Your task to perform on an android device: turn off notifications settings in the gmail app Image 0: 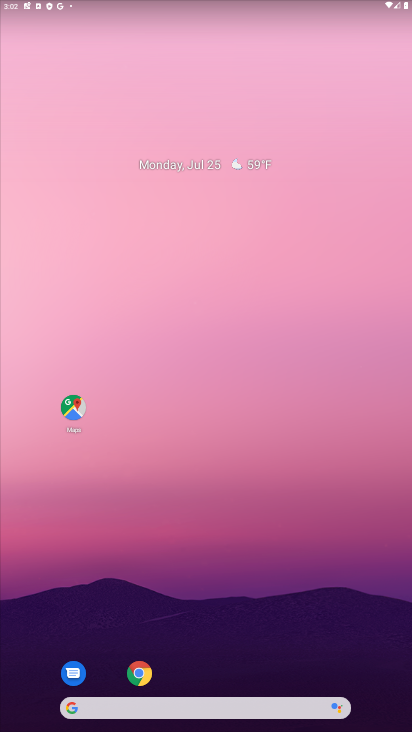
Step 0: drag from (224, 648) to (215, 61)
Your task to perform on an android device: turn off notifications settings in the gmail app Image 1: 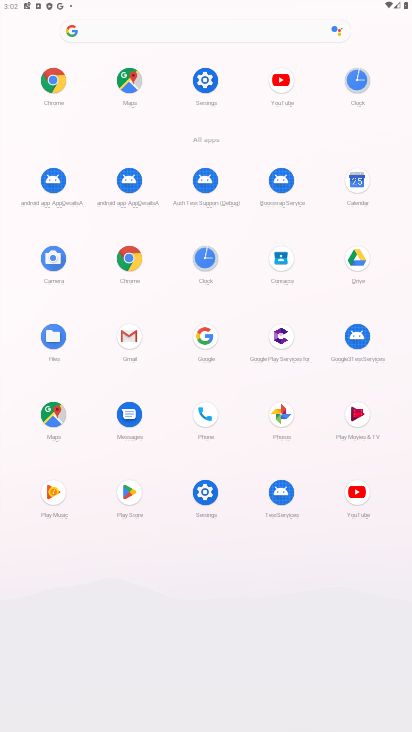
Step 1: click (197, 92)
Your task to perform on an android device: turn off notifications settings in the gmail app Image 2: 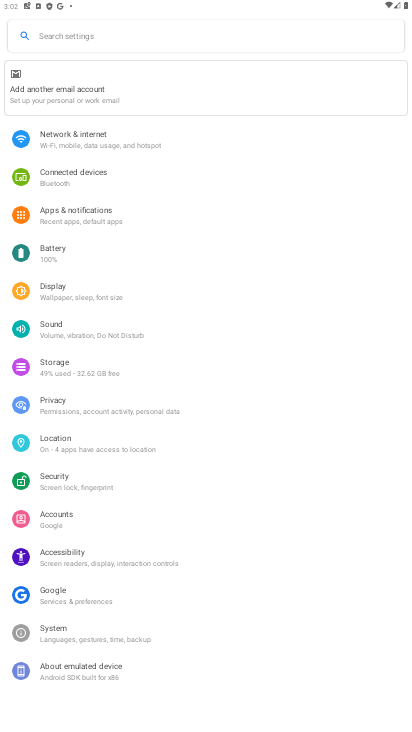
Step 2: click (154, 214)
Your task to perform on an android device: turn off notifications settings in the gmail app Image 3: 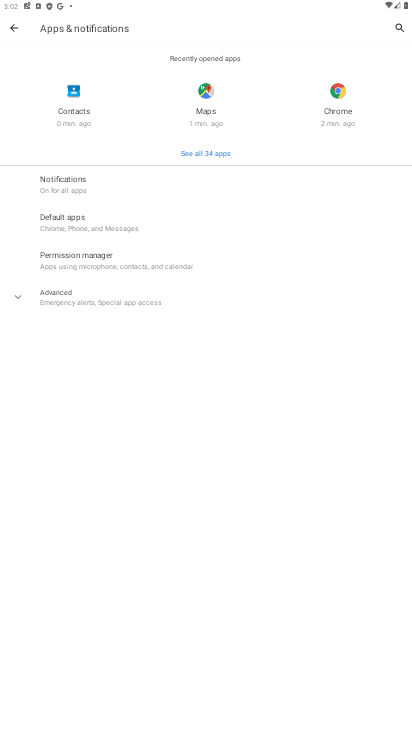
Step 3: click (226, 152)
Your task to perform on an android device: turn off notifications settings in the gmail app Image 4: 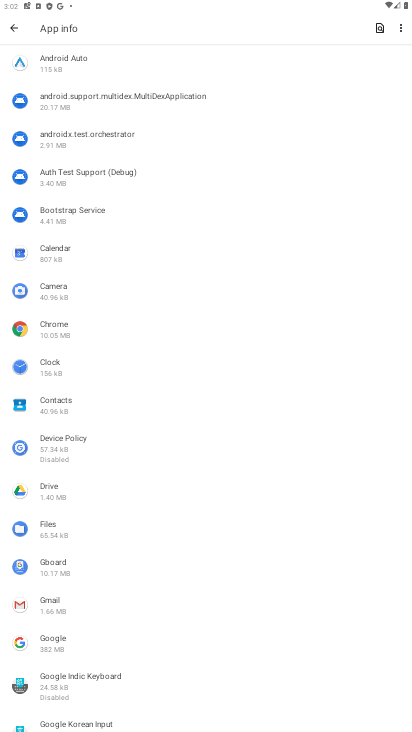
Step 4: click (97, 605)
Your task to perform on an android device: turn off notifications settings in the gmail app Image 5: 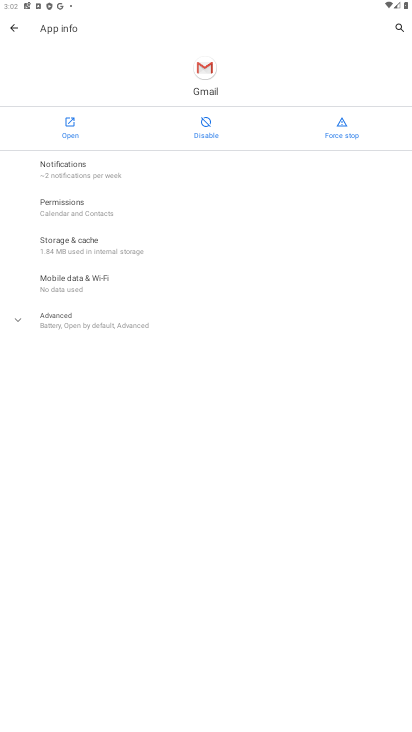
Step 5: click (91, 175)
Your task to perform on an android device: turn off notifications settings in the gmail app Image 6: 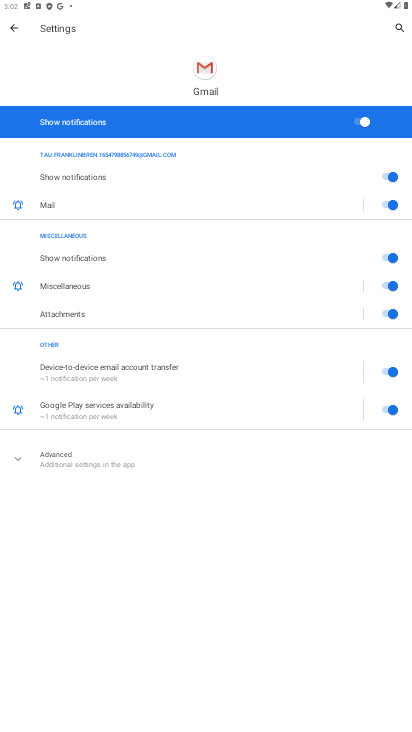
Step 6: click (361, 118)
Your task to perform on an android device: turn off notifications settings in the gmail app Image 7: 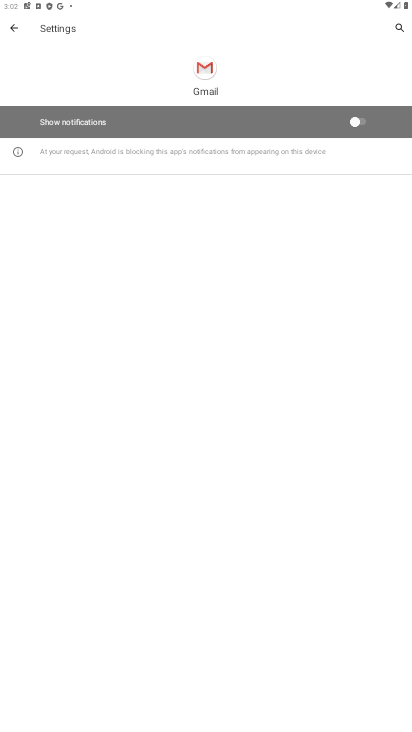
Step 7: task complete